Your task to perform on an android device: Show me productivity apps on the Play Store Image 0: 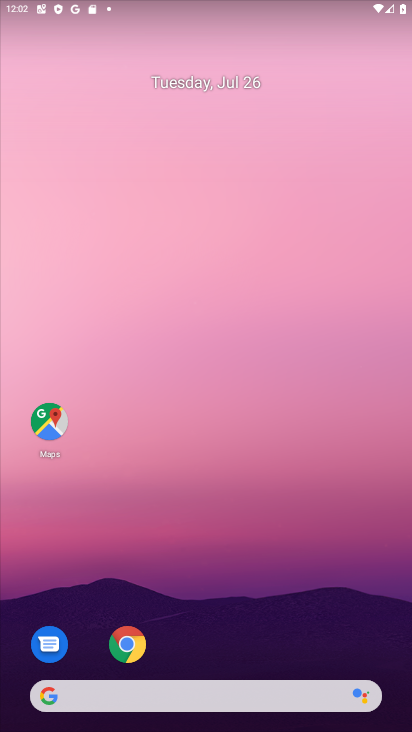
Step 0: drag from (251, 628) to (210, 37)
Your task to perform on an android device: Show me productivity apps on the Play Store Image 1: 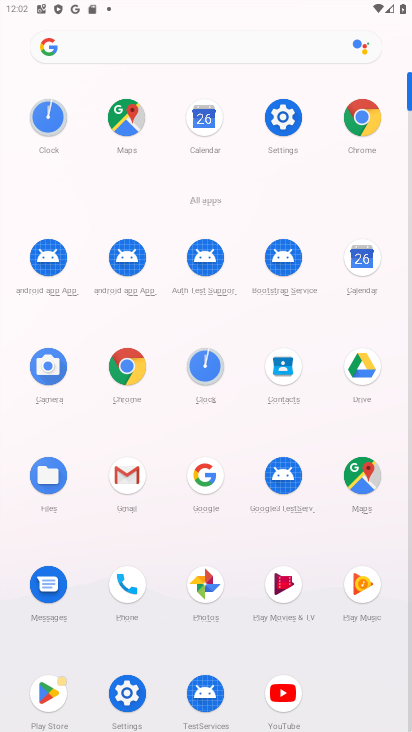
Step 1: click (43, 695)
Your task to perform on an android device: Show me productivity apps on the Play Store Image 2: 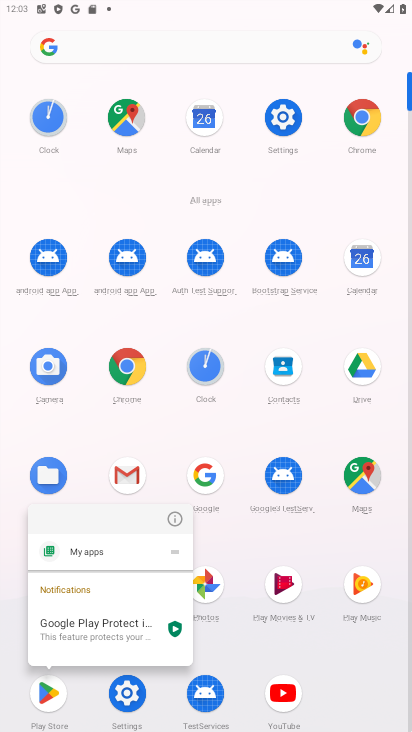
Step 2: click (52, 696)
Your task to perform on an android device: Show me productivity apps on the Play Store Image 3: 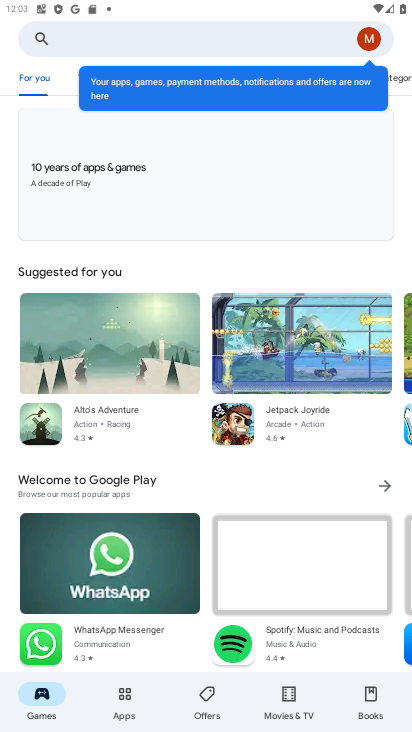
Step 3: click (120, 700)
Your task to perform on an android device: Show me productivity apps on the Play Store Image 4: 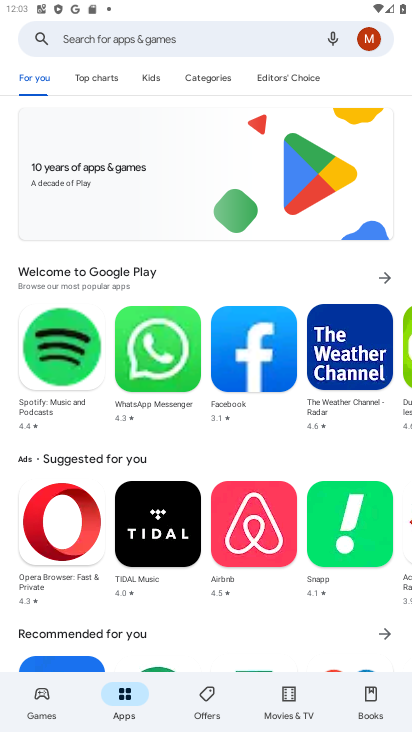
Step 4: click (206, 77)
Your task to perform on an android device: Show me productivity apps on the Play Store Image 5: 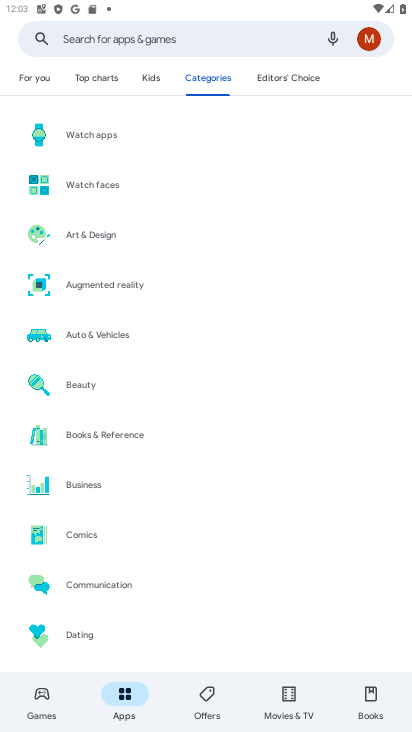
Step 5: drag from (154, 541) to (174, 83)
Your task to perform on an android device: Show me productivity apps on the Play Store Image 6: 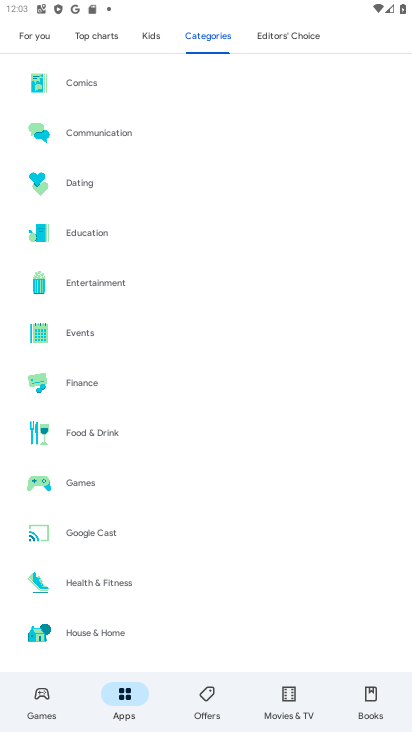
Step 6: drag from (151, 492) to (156, 62)
Your task to perform on an android device: Show me productivity apps on the Play Store Image 7: 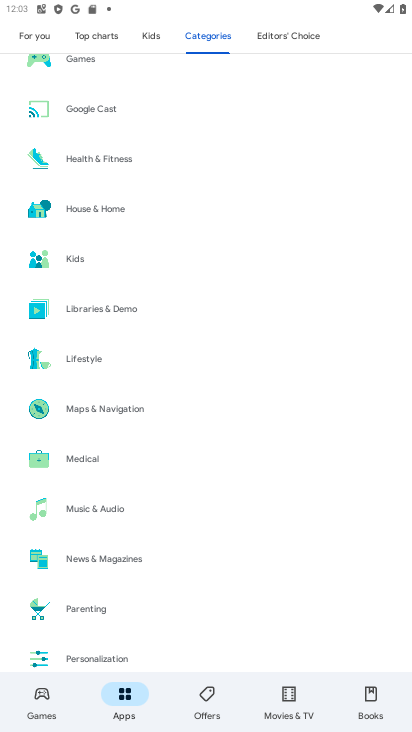
Step 7: drag from (142, 447) to (136, 113)
Your task to perform on an android device: Show me productivity apps on the Play Store Image 8: 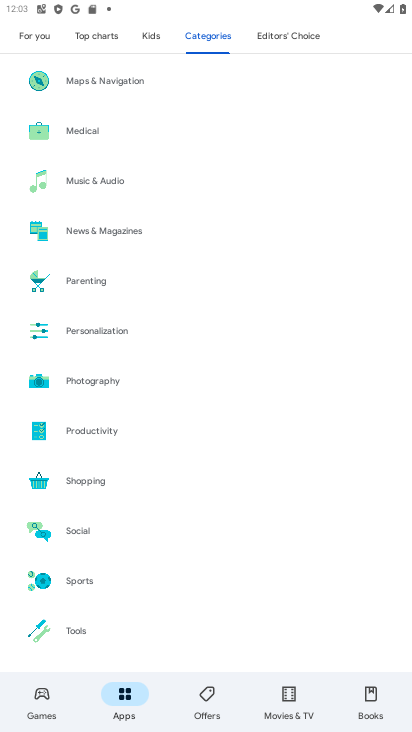
Step 8: click (94, 433)
Your task to perform on an android device: Show me productivity apps on the Play Store Image 9: 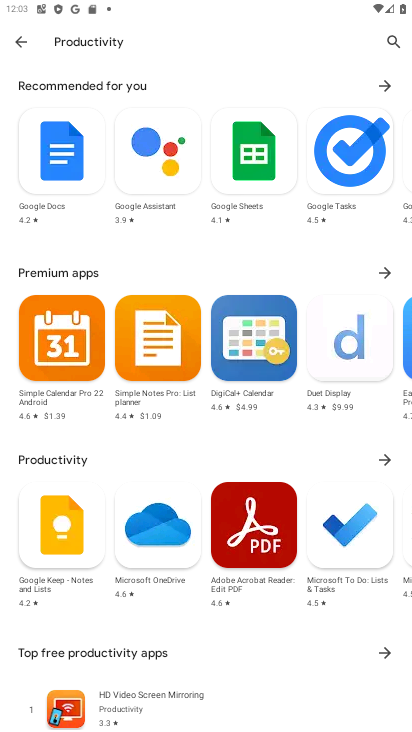
Step 9: task complete